Your task to perform on an android device: choose inbox layout in the gmail app Image 0: 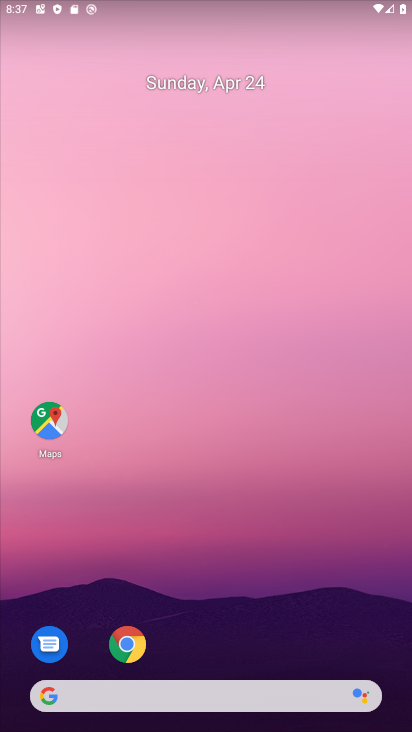
Step 0: drag from (206, 658) to (289, 31)
Your task to perform on an android device: choose inbox layout in the gmail app Image 1: 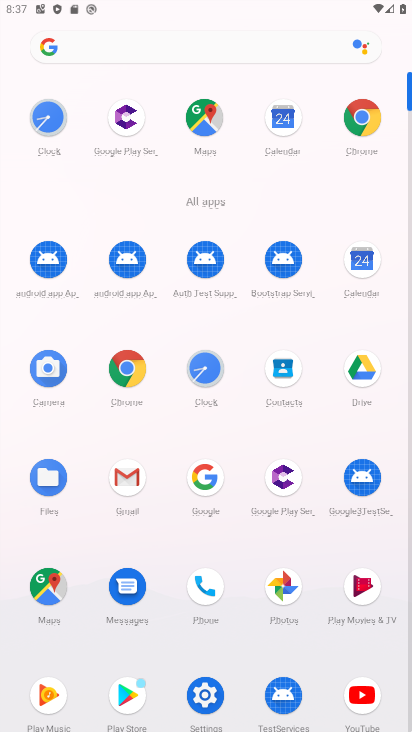
Step 1: click (123, 478)
Your task to perform on an android device: choose inbox layout in the gmail app Image 2: 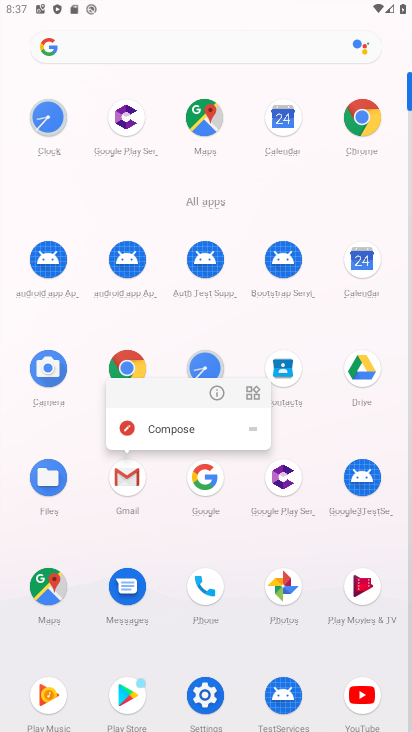
Step 2: click (123, 478)
Your task to perform on an android device: choose inbox layout in the gmail app Image 3: 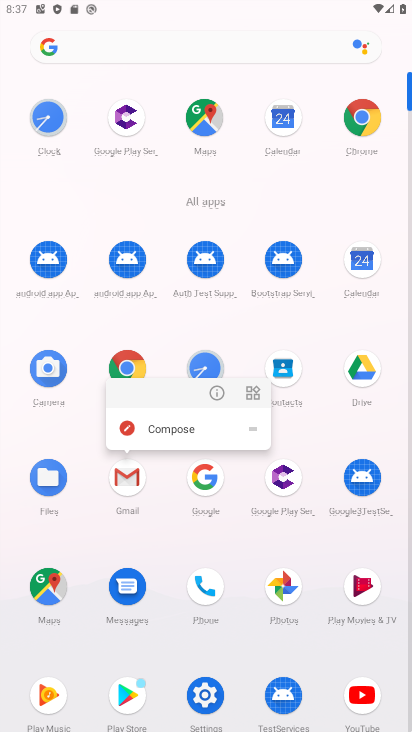
Step 3: click (132, 487)
Your task to perform on an android device: choose inbox layout in the gmail app Image 4: 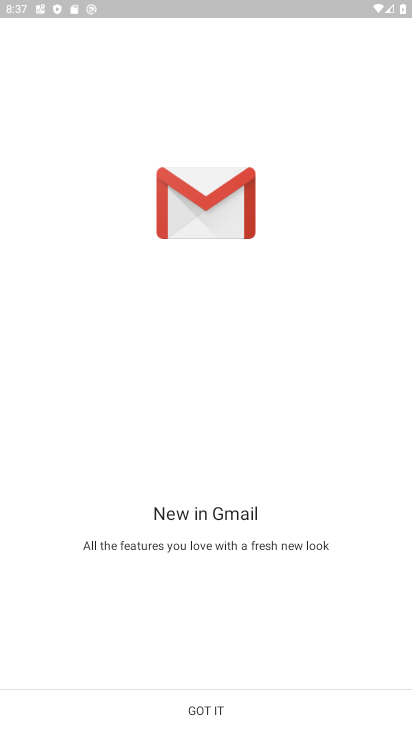
Step 4: click (253, 712)
Your task to perform on an android device: choose inbox layout in the gmail app Image 5: 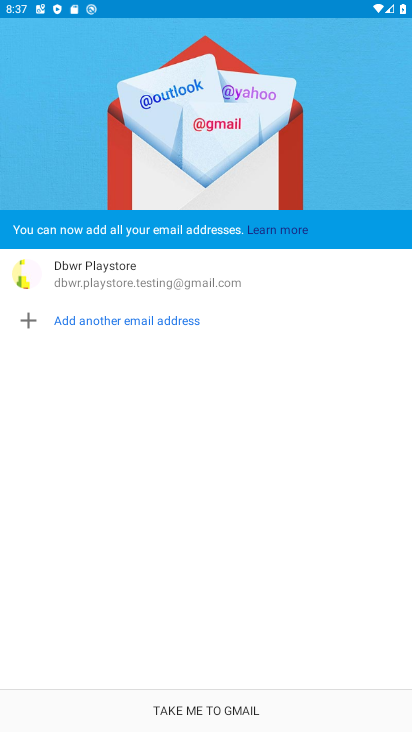
Step 5: click (253, 712)
Your task to perform on an android device: choose inbox layout in the gmail app Image 6: 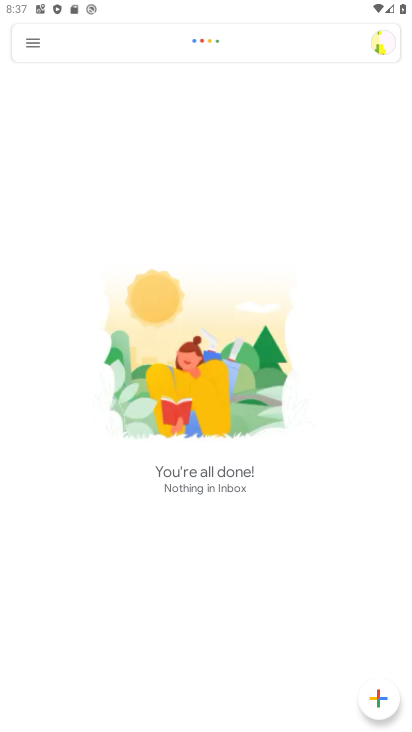
Step 6: click (38, 39)
Your task to perform on an android device: choose inbox layout in the gmail app Image 7: 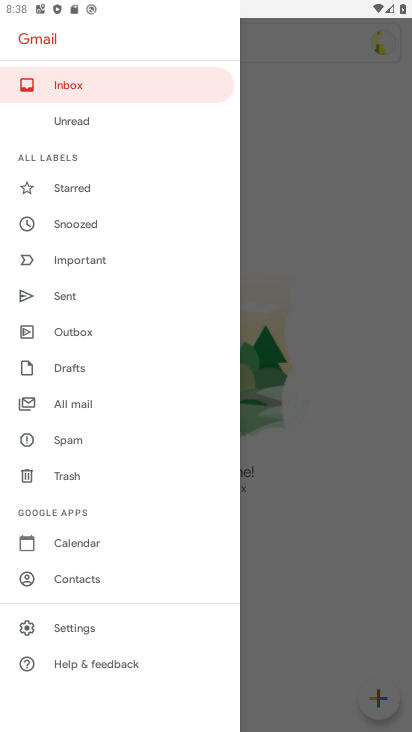
Step 7: click (114, 625)
Your task to perform on an android device: choose inbox layout in the gmail app Image 8: 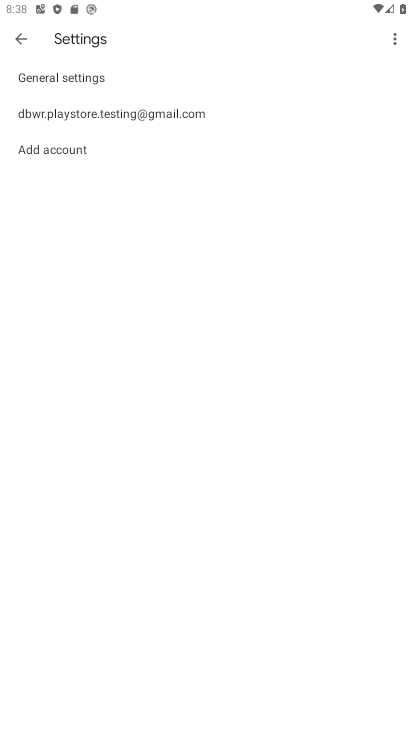
Step 8: click (182, 114)
Your task to perform on an android device: choose inbox layout in the gmail app Image 9: 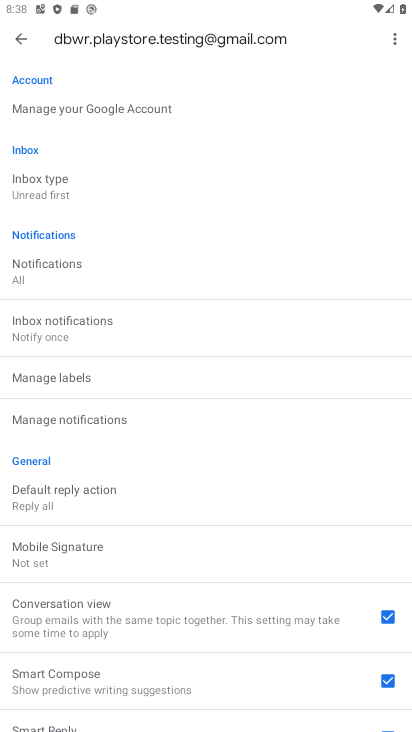
Step 9: click (107, 191)
Your task to perform on an android device: choose inbox layout in the gmail app Image 10: 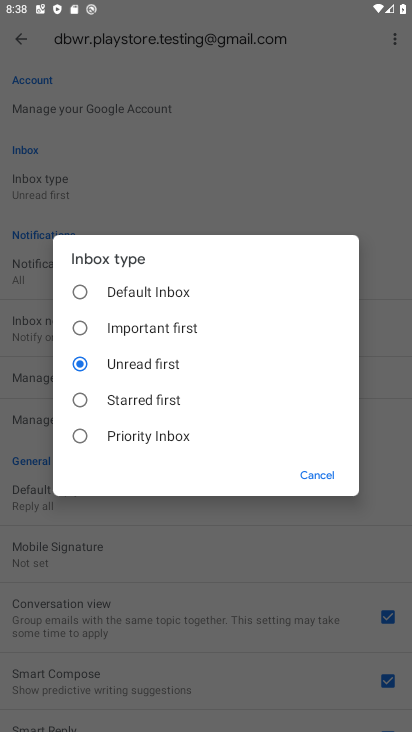
Step 10: click (191, 403)
Your task to perform on an android device: choose inbox layout in the gmail app Image 11: 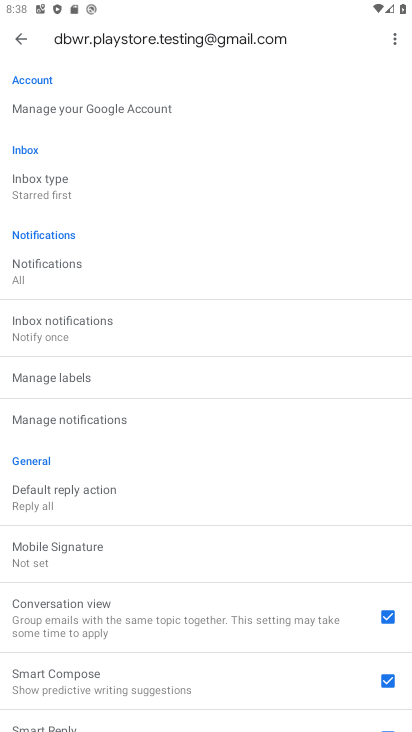
Step 11: task complete